Your task to perform on an android device: read, delete, or share a saved page in the chrome app Image 0: 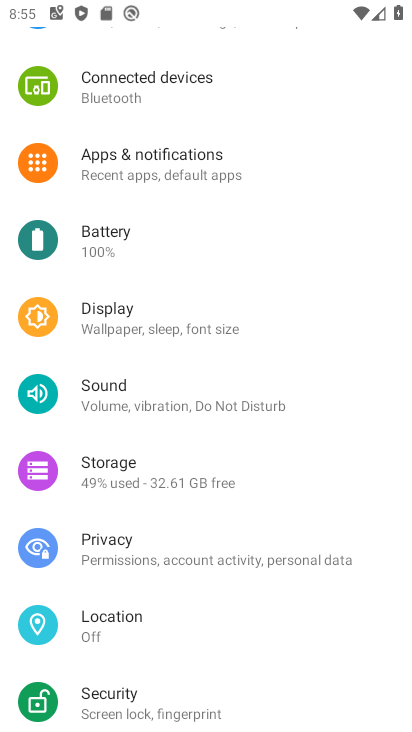
Step 0: press back button
Your task to perform on an android device: read, delete, or share a saved page in the chrome app Image 1: 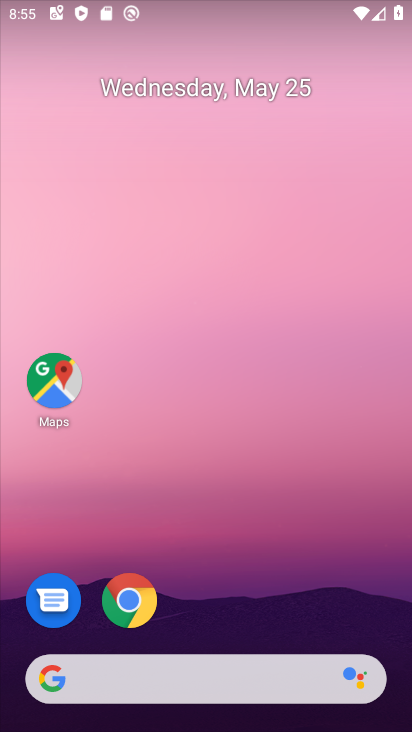
Step 1: drag from (313, 573) to (191, 42)
Your task to perform on an android device: read, delete, or share a saved page in the chrome app Image 2: 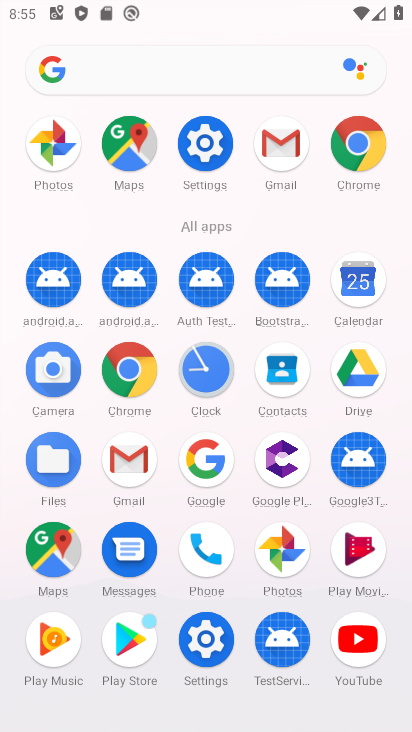
Step 2: drag from (7, 596) to (22, 259)
Your task to perform on an android device: read, delete, or share a saved page in the chrome app Image 3: 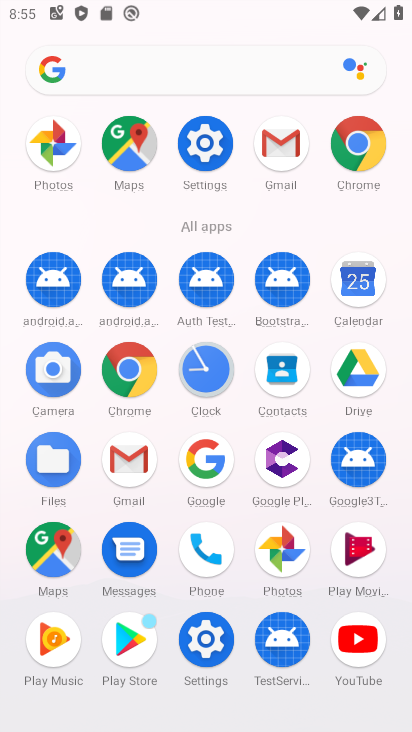
Step 3: click (130, 365)
Your task to perform on an android device: read, delete, or share a saved page in the chrome app Image 4: 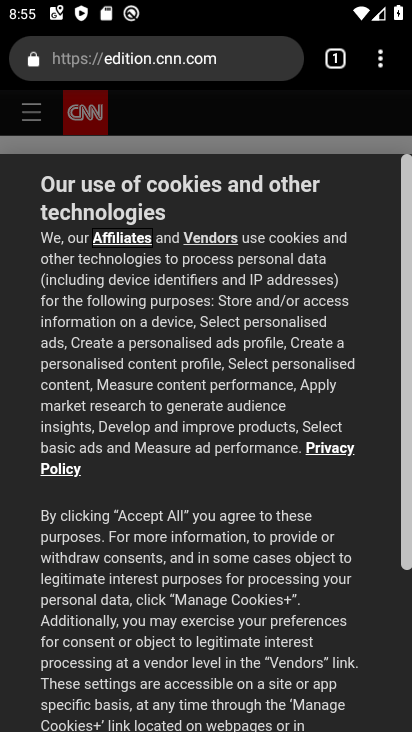
Step 4: task complete